Your task to perform on an android device: Go to ESPN.com Image 0: 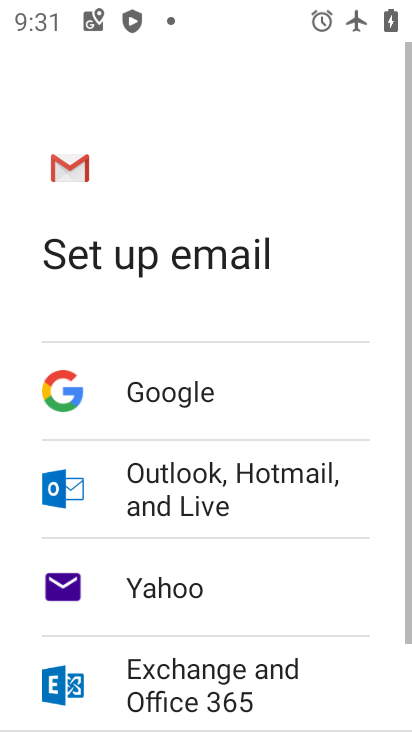
Step 0: press home button
Your task to perform on an android device: Go to ESPN.com Image 1: 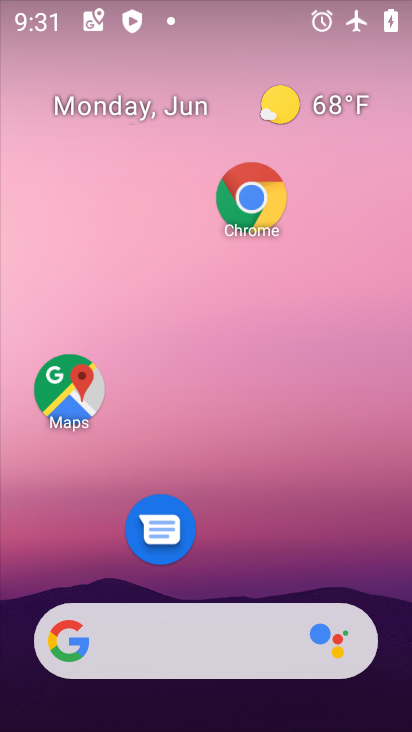
Step 1: click (246, 179)
Your task to perform on an android device: Go to ESPN.com Image 2: 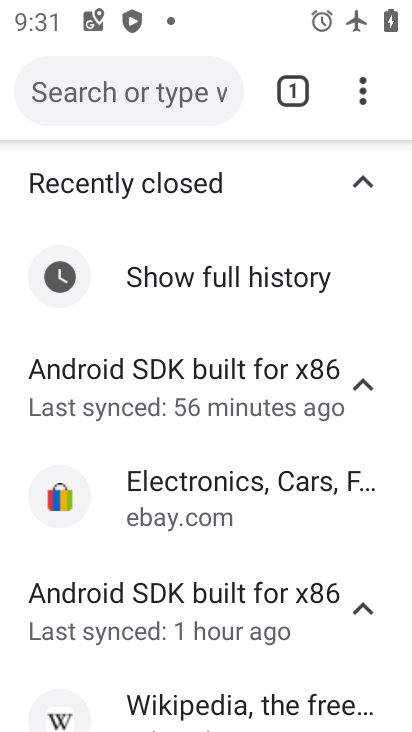
Step 2: click (54, 90)
Your task to perform on an android device: Go to ESPN.com Image 3: 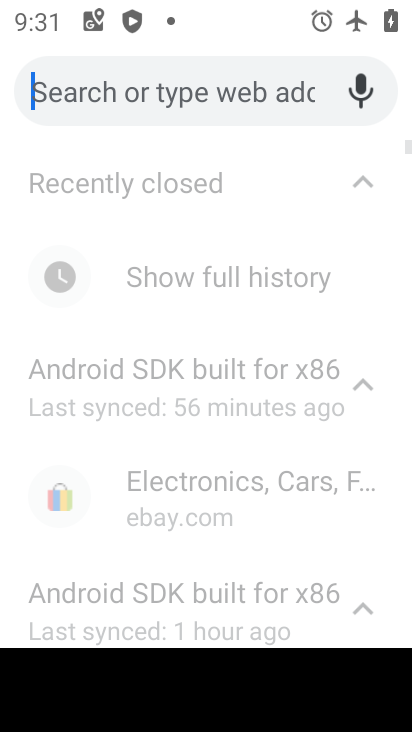
Step 3: click (143, 90)
Your task to perform on an android device: Go to ESPN.com Image 4: 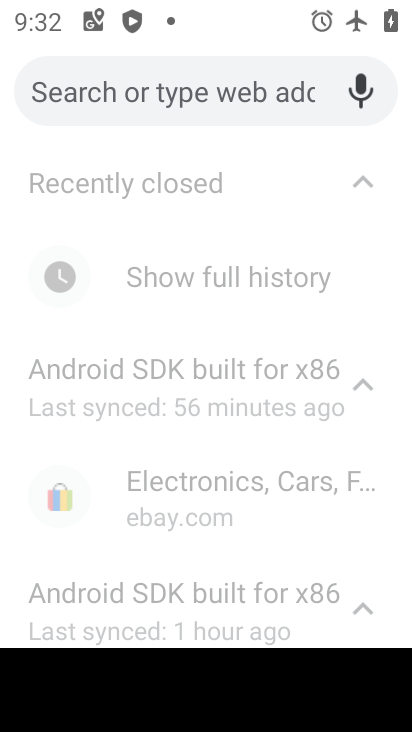
Step 4: type "ESPN.com"
Your task to perform on an android device: Go to ESPN.com Image 5: 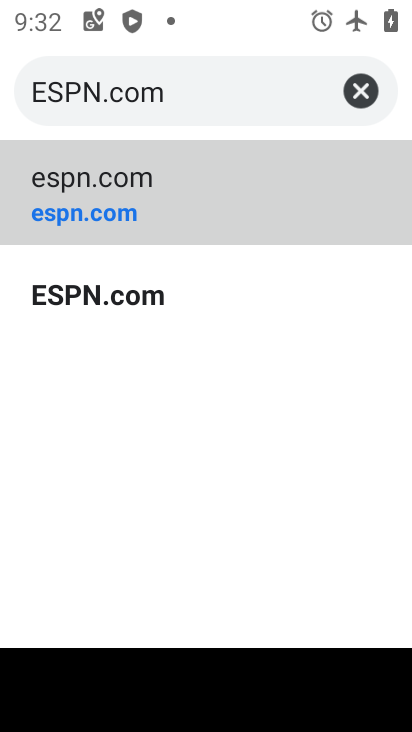
Step 5: click (256, 193)
Your task to perform on an android device: Go to ESPN.com Image 6: 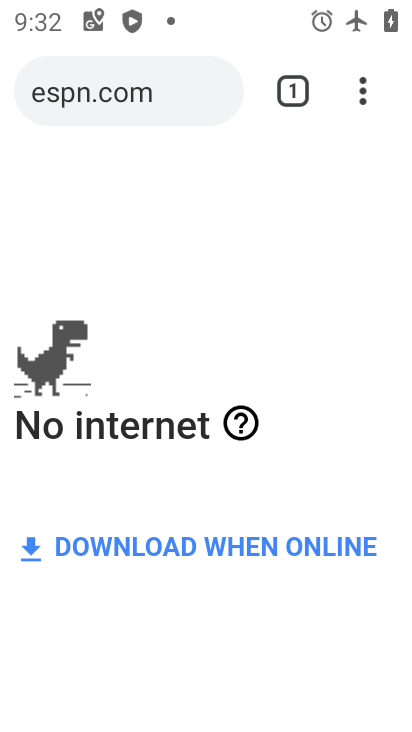
Step 6: task complete